Your task to perform on an android device: Go to Reddit.com Image 0: 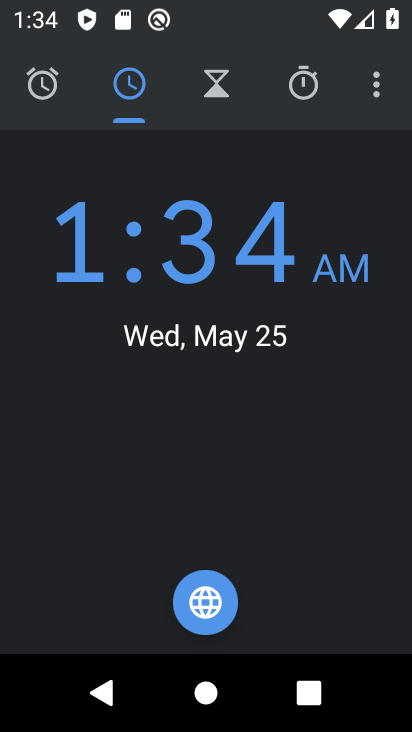
Step 0: press home button
Your task to perform on an android device: Go to Reddit.com Image 1: 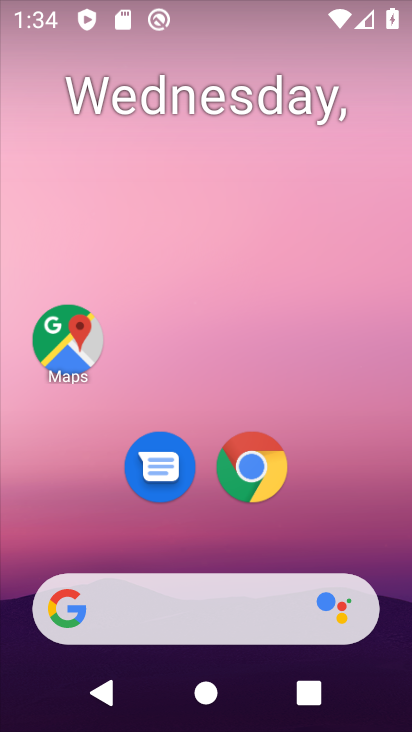
Step 1: click (256, 485)
Your task to perform on an android device: Go to Reddit.com Image 2: 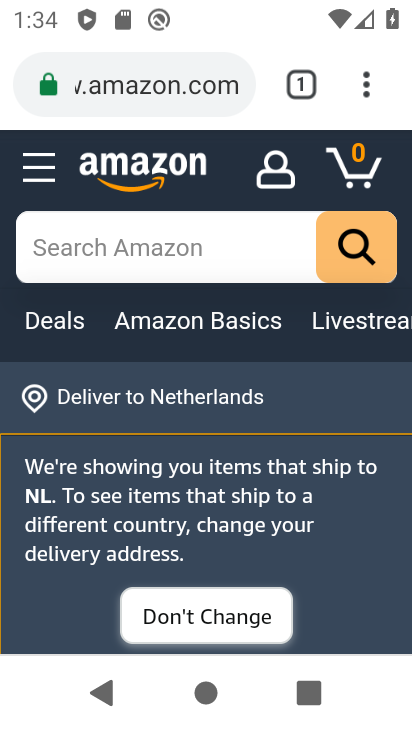
Step 2: click (176, 63)
Your task to perform on an android device: Go to Reddit.com Image 3: 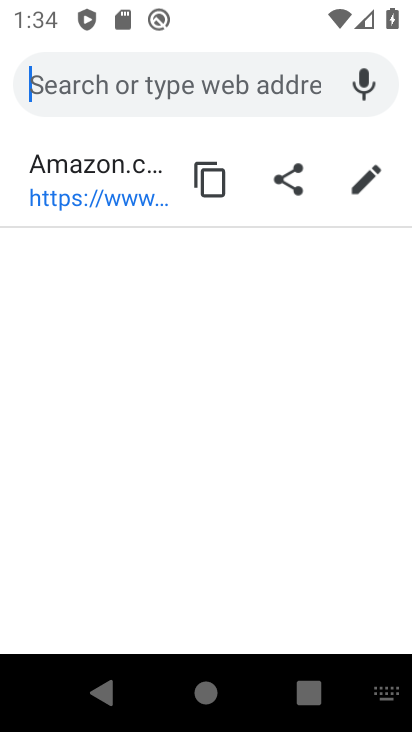
Step 3: type "reddit.com"
Your task to perform on an android device: Go to Reddit.com Image 4: 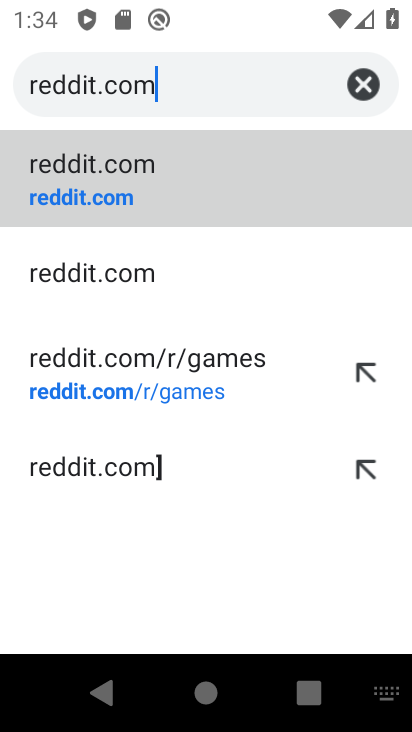
Step 4: click (193, 191)
Your task to perform on an android device: Go to Reddit.com Image 5: 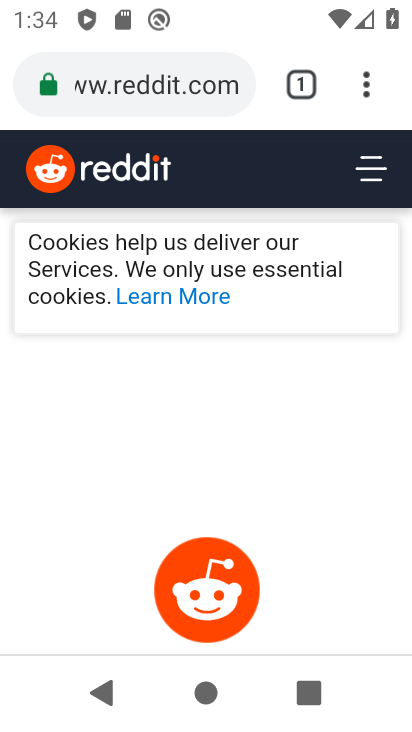
Step 5: task complete